Your task to perform on an android device: open app "Google Home" (install if not already installed) Image 0: 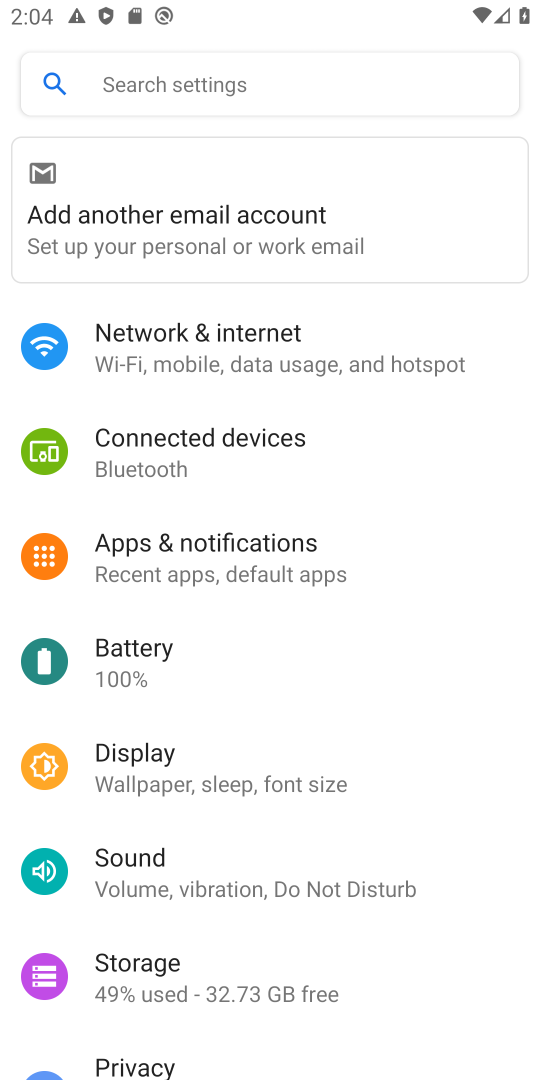
Step 0: press home button
Your task to perform on an android device: open app "Google Home" (install if not already installed) Image 1: 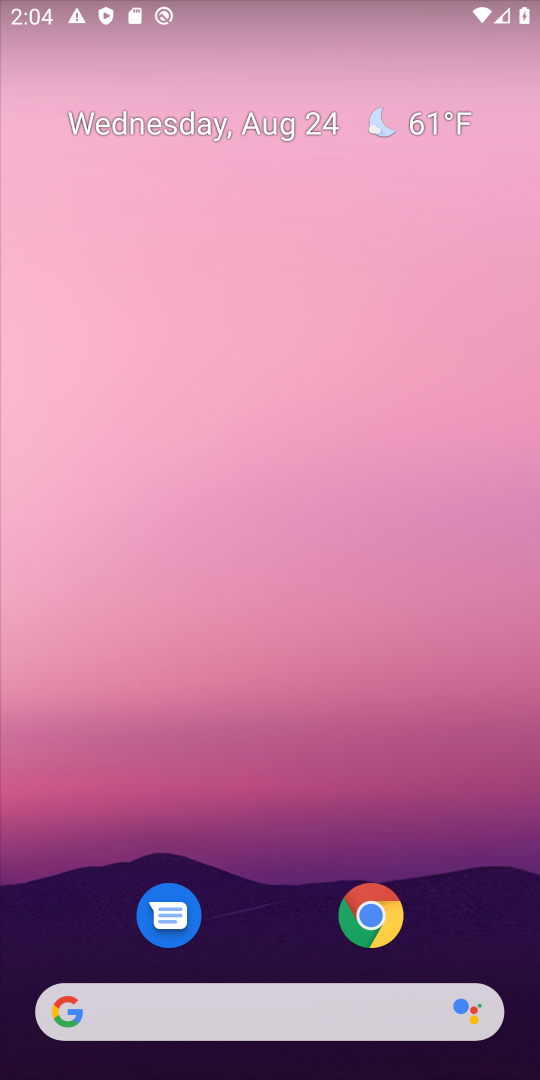
Step 1: drag from (222, 820) to (282, 296)
Your task to perform on an android device: open app "Google Home" (install if not already installed) Image 2: 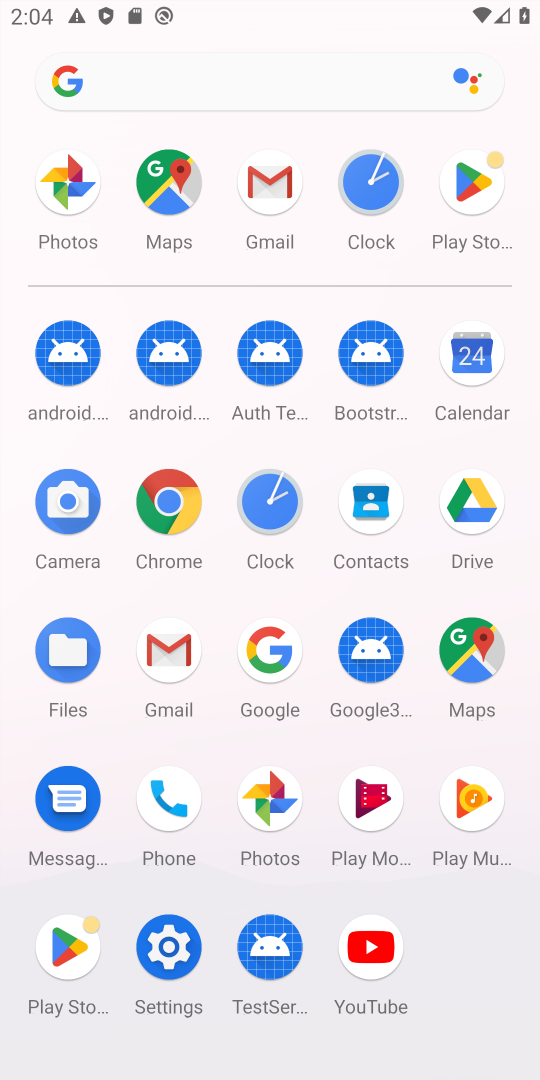
Step 2: click (453, 206)
Your task to perform on an android device: open app "Google Home" (install if not already installed) Image 3: 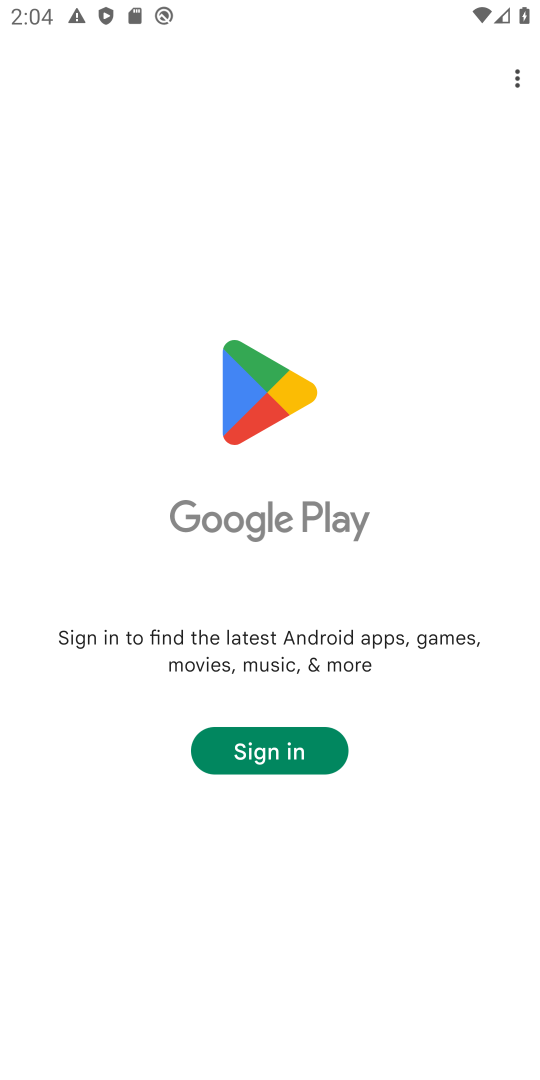
Step 3: task complete